Your task to perform on an android device: Turn off the flashlight Image 0: 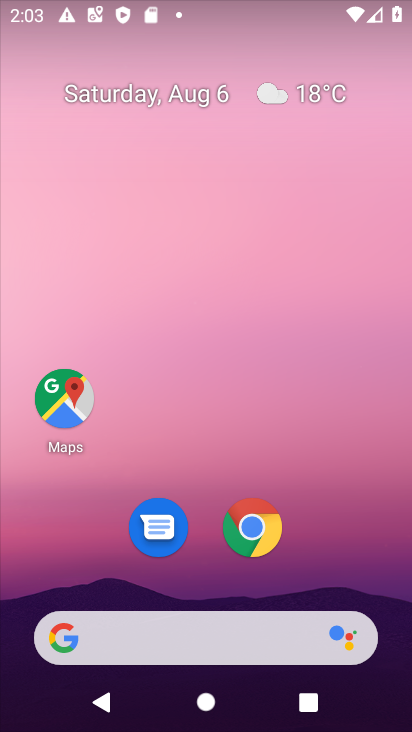
Step 0: drag from (39, 550) to (213, 139)
Your task to perform on an android device: Turn off the flashlight Image 1: 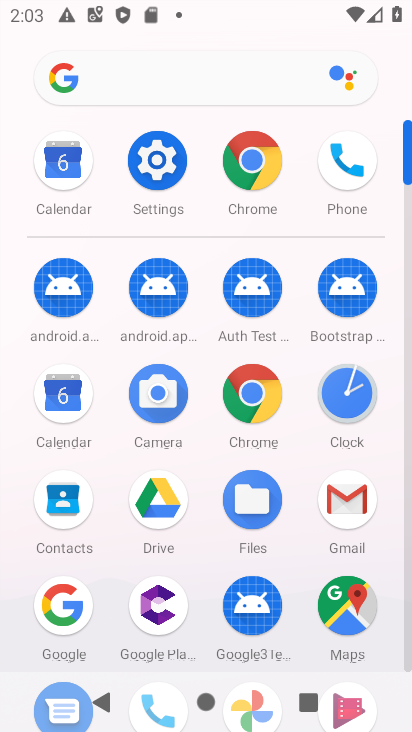
Step 1: click (158, 163)
Your task to perform on an android device: Turn off the flashlight Image 2: 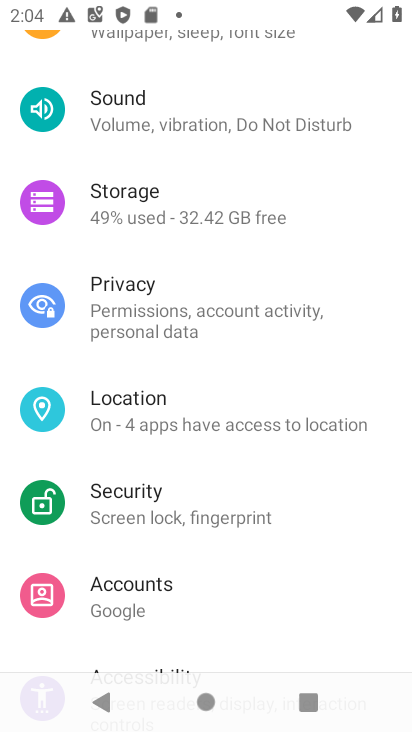
Step 2: task complete